Your task to perform on an android device: toggle translation in the chrome app Image 0: 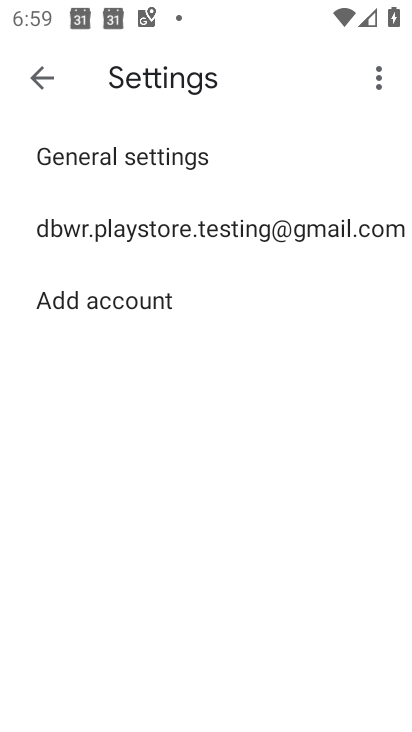
Step 0: press home button
Your task to perform on an android device: toggle translation in the chrome app Image 1: 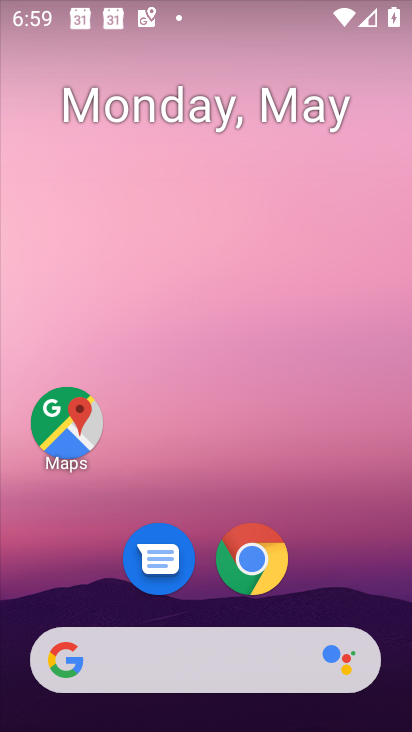
Step 1: drag from (379, 640) to (322, 95)
Your task to perform on an android device: toggle translation in the chrome app Image 2: 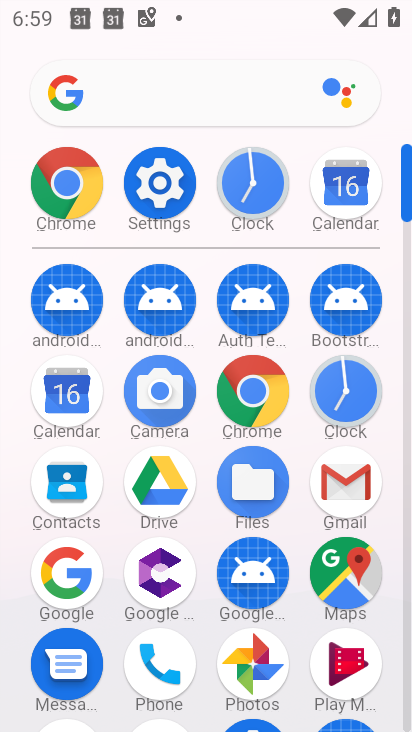
Step 2: click (49, 189)
Your task to perform on an android device: toggle translation in the chrome app Image 3: 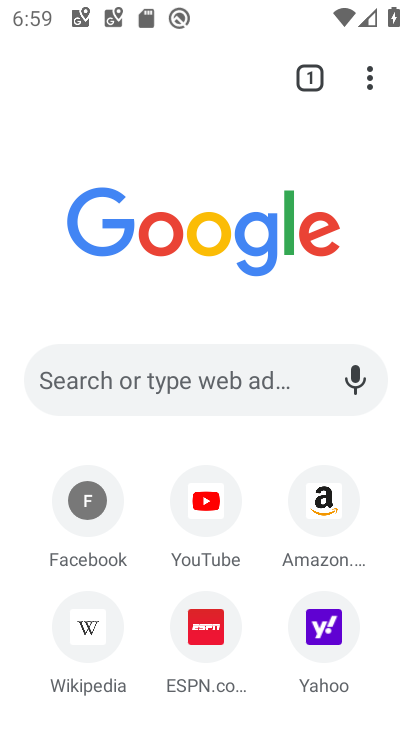
Step 3: click (373, 80)
Your task to perform on an android device: toggle translation in the chrome app Image 4: 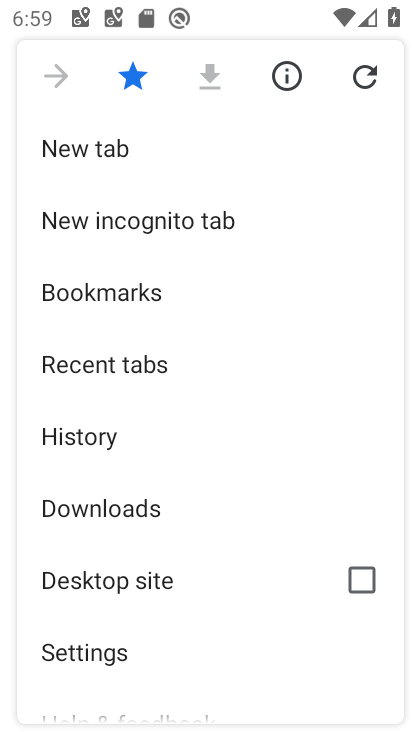
Step 4: click (118, 650)
Your task to perform on an android device: toggle translation in the chrome app Image 5: 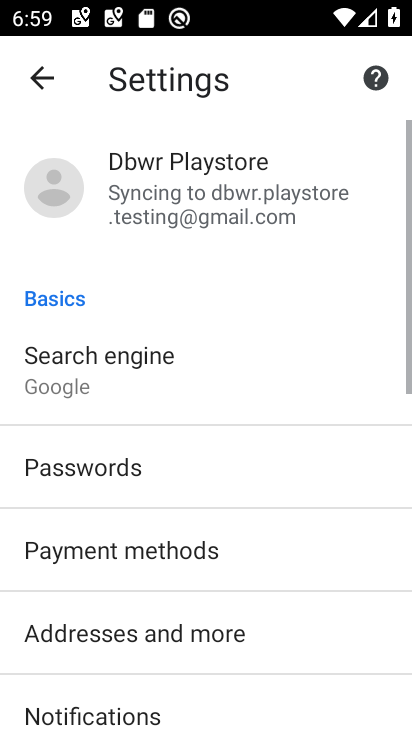
Step 5: drag from (119, 650) to (115, 141)
Your task to perform on an android device: toggle translation in the chrome app Image 6: 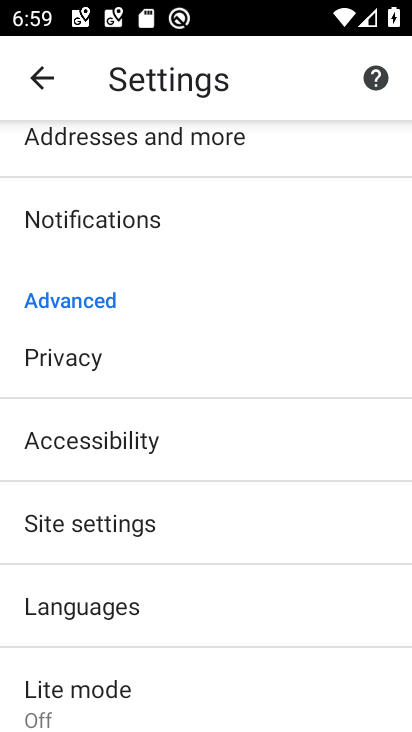
Step 6: click (134, 591)
Your task to perform on an android device: toggle translation in the chrome app Image 7: 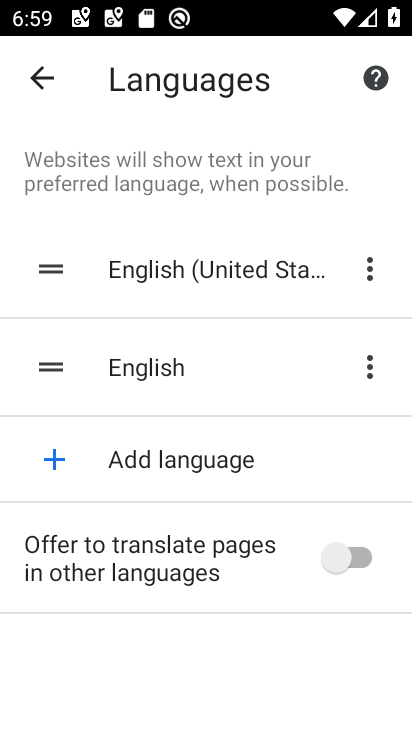
Step 7: click (219, 557)
Your task to perform on an android device: toggle translation in the chrome app Image 8: 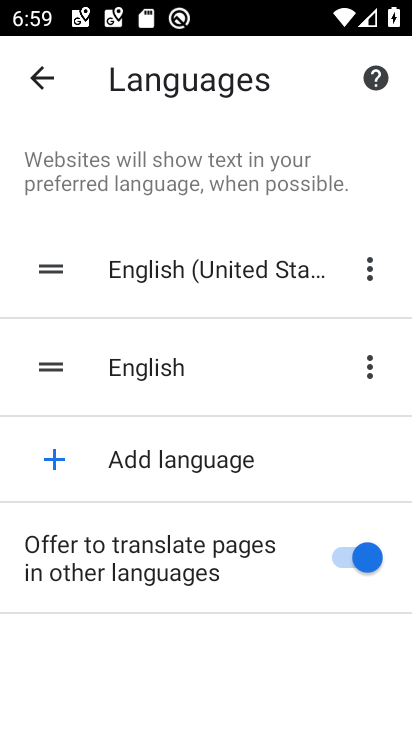
Step 8: task complete